Your task to perform on an android device: View the shopping cart on bestbuy. Add "usb-b" to the cart on bestbuy, then select checkout. Image 0: 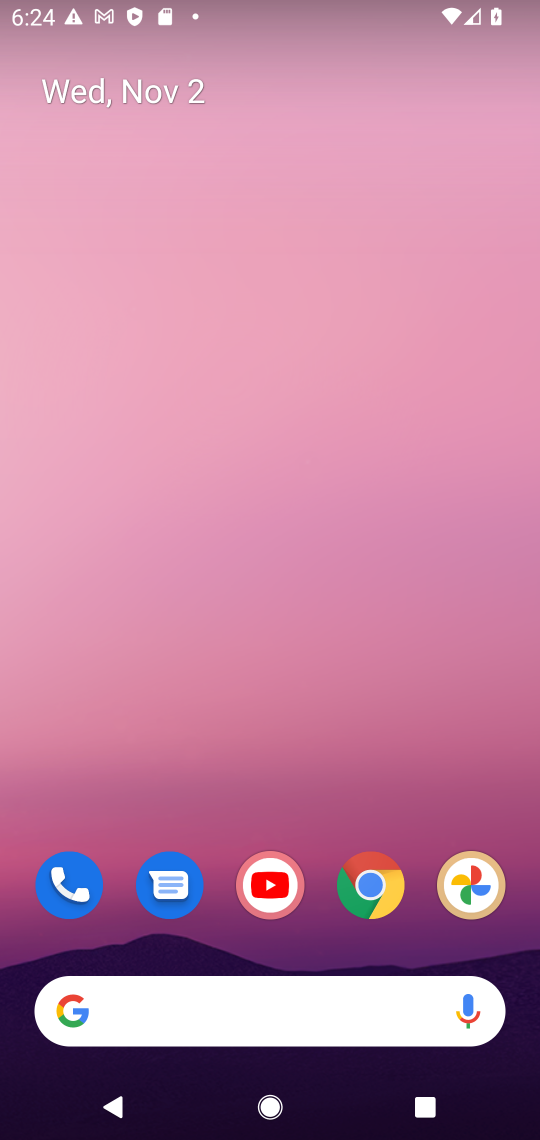
Step 0: drag from (310, 953) to (268, 46)
Your task to perform on an android device: View the shopping cart on bestbuy. Add "usb-b" to the cart on bestbuy, then select checkout. Image 1: 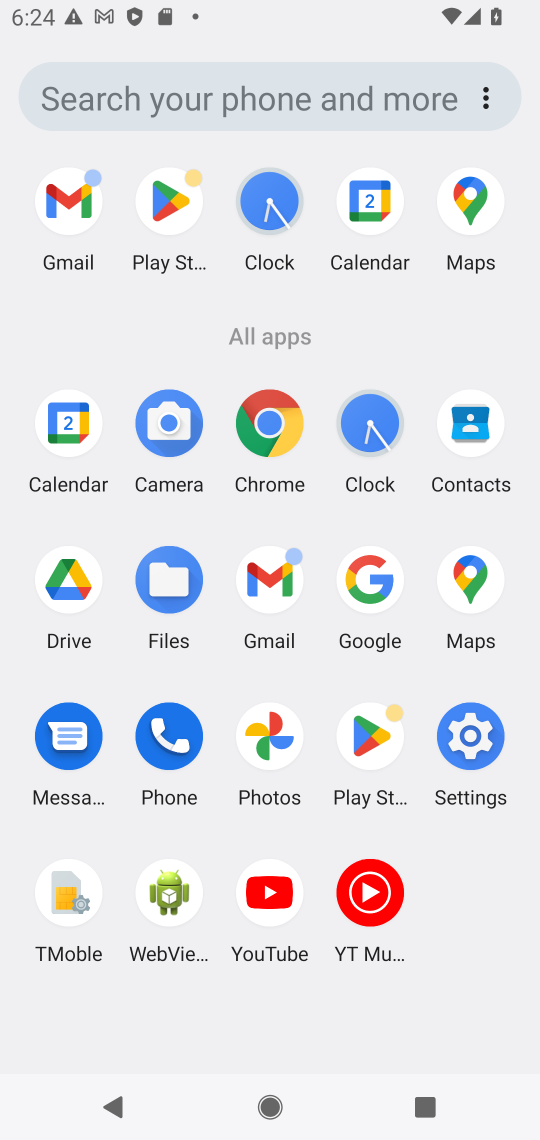
Step 1: click (259, 434)
Your task to perform on an android device: View the shopping cart on bestbuy. Add "usb-b" to the cart on bestbuy, then select checkout. Image 2: 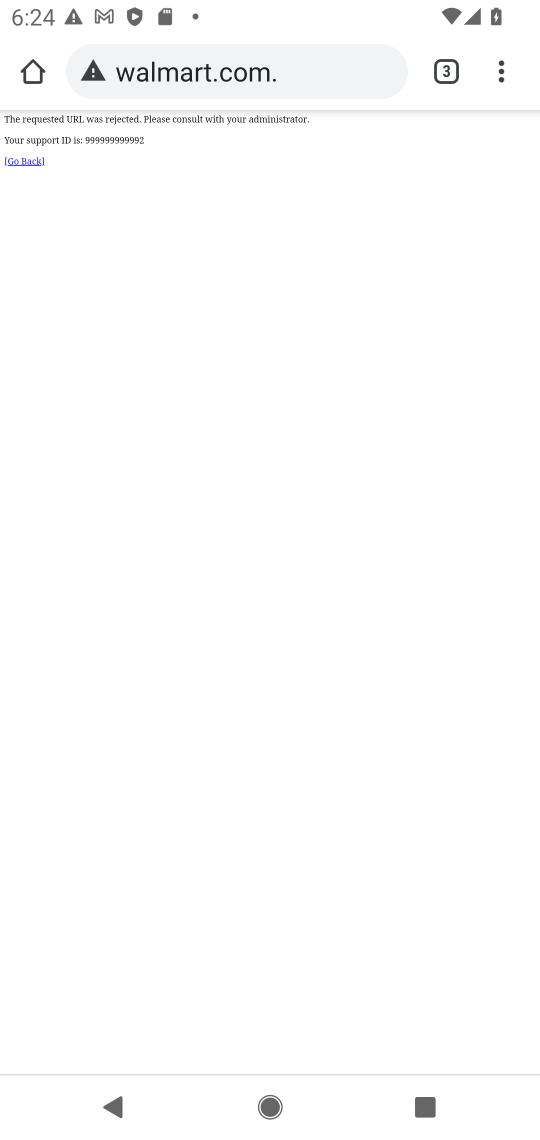
Step 2: click (274, 417)
Your task to perform on an android device: View the shopping cart on bestbuy. Add "usb-b" to the cart on bestbuy, then select checkout. Image 3: 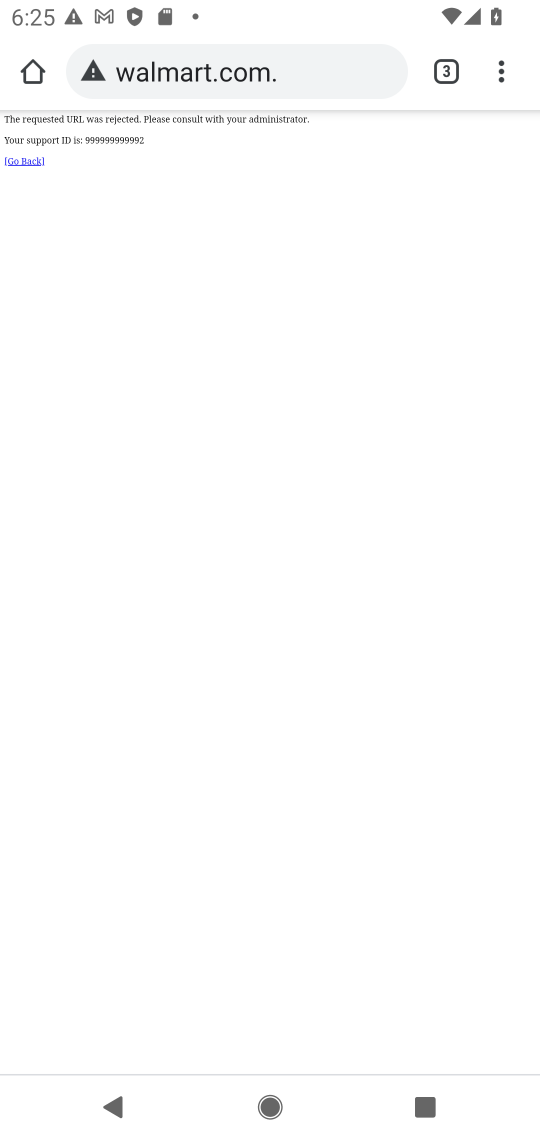
Step 3: click (23, 159)
Your task to perform on an android device: View the shopping cart on bestbuy. Add "usb-b" to the cart on bestbuy, then select checkout. Image 4: 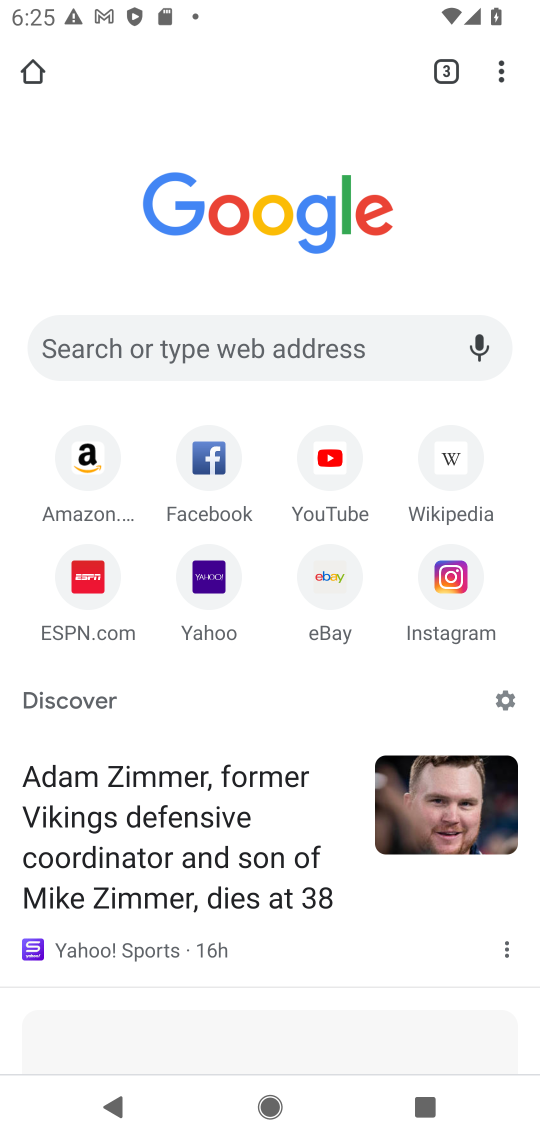
Step 4: task complete